Your task to perform on an android device: Check the weather Image 0: 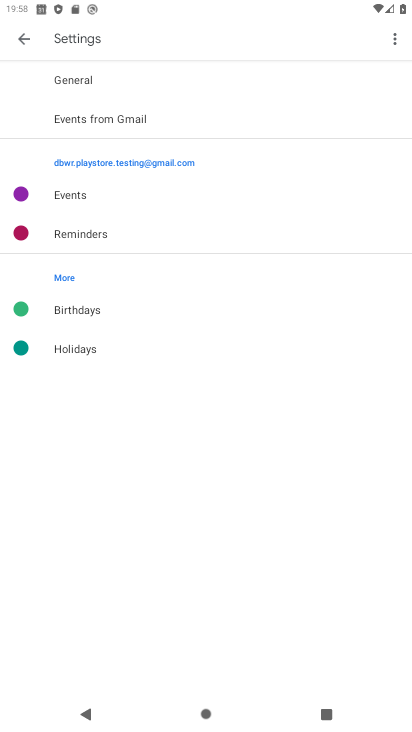
Step 0: press home button
Your task to perform on an android device: Check the weather Image 1: 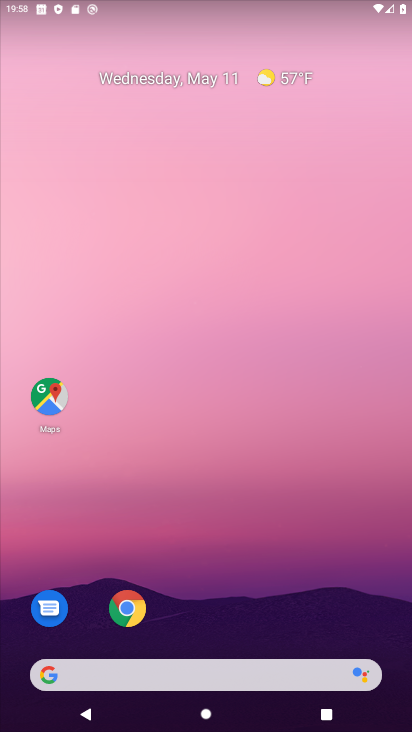
Step 1: drag from (243, 599) to (188, 132)
Your task to perform on an android device: Check the weather Image 2: 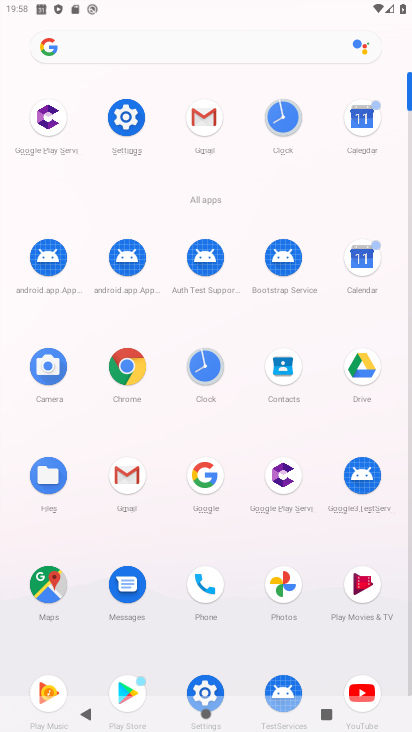
Step 2: press home button
Your task to perform on an android device: Check the weather Image 3: 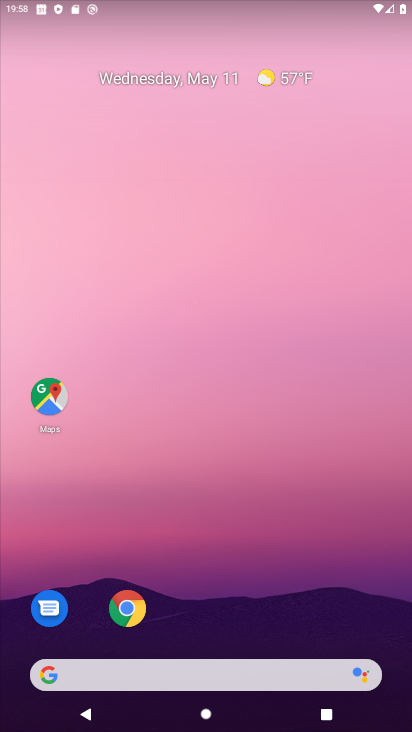
Step 3: click (295, 70)
Your task to perform on an android device: Check the weather Image 4: 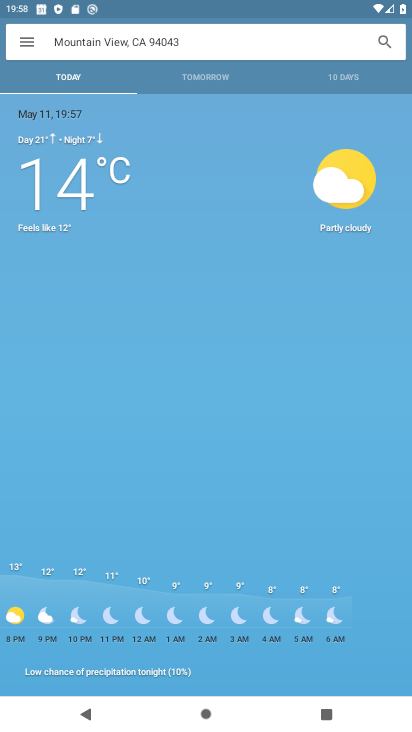
Step 4: task complete